Your task to perform on an android device: change your default location settings in chrome Image 0: 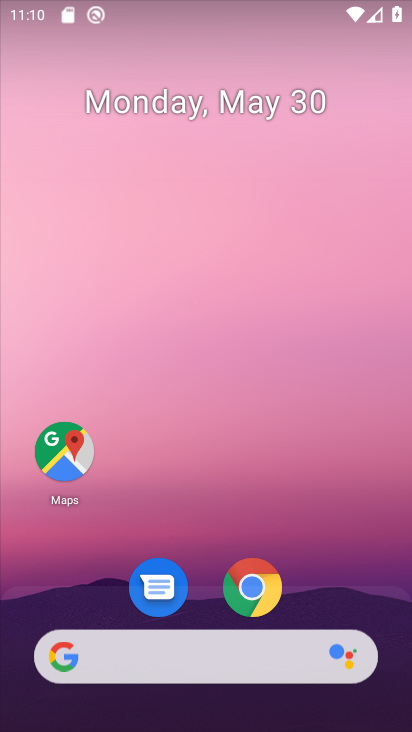
Step 0: click (257, 589)
Your task to perform on an android device: change your default location settings in chrome Image 1: 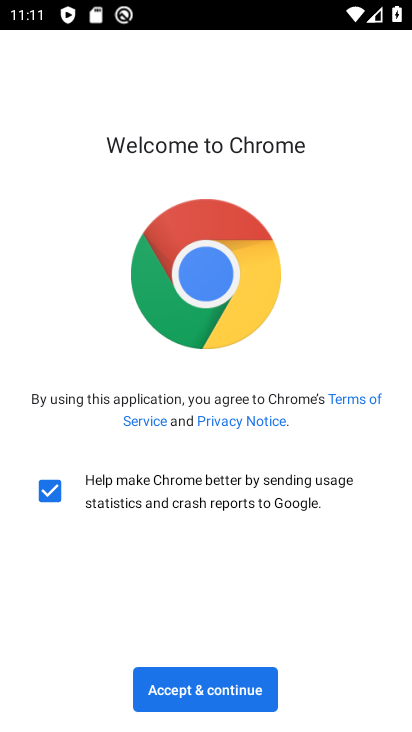
Step 1: click (205, 695)
Your task to perform on an android device: change your default location settings in chrome Image 2: 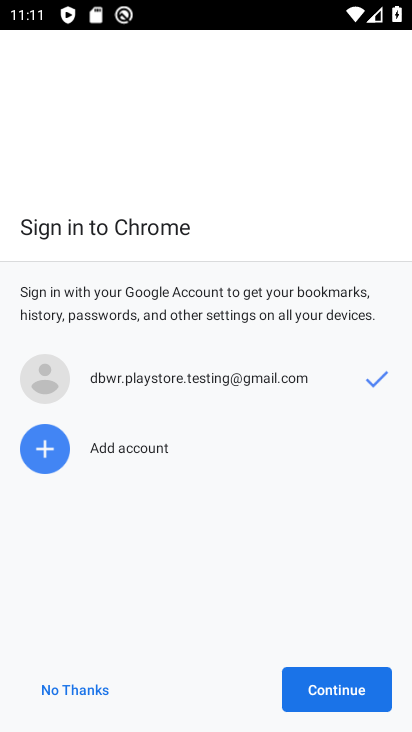
Step 2: click (339, 704)
Your task to perform on an android device: change your default location settings in chrome Image 3: 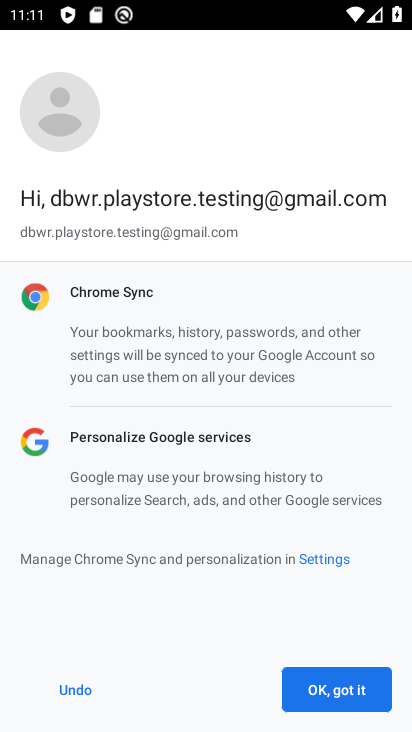
Step 3: click (328, 690)
Your task to perform on an android device: change your default location settings in chrome Image 4: 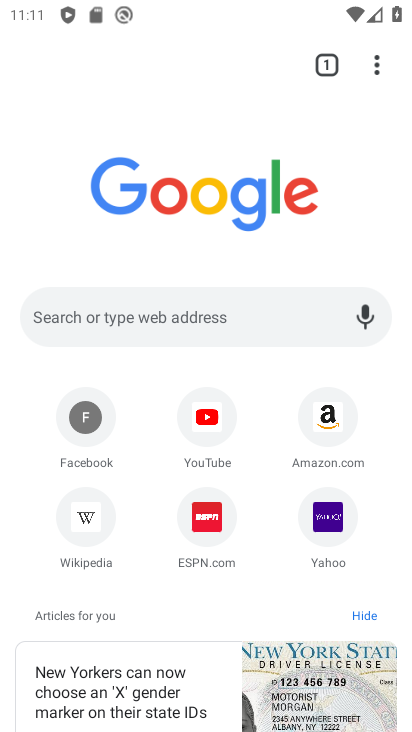
Step 4: click (371, 66)
Your task to perform on an android device: change your default location settings in chrome Image 5: 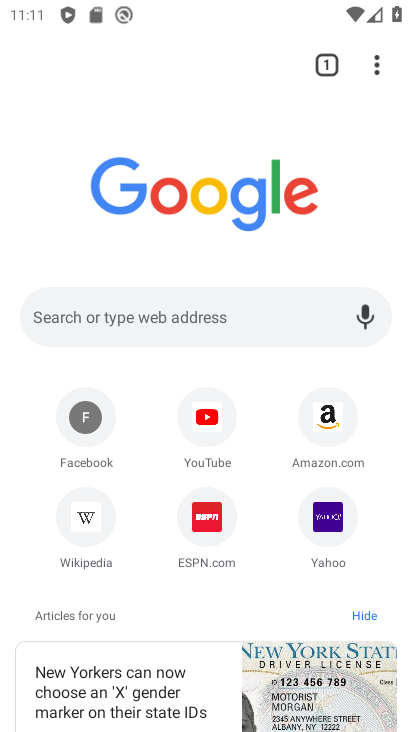
Step 5: click (373, 68)
Your task to perform on an android device: change your default location settings in chrome Image 6: 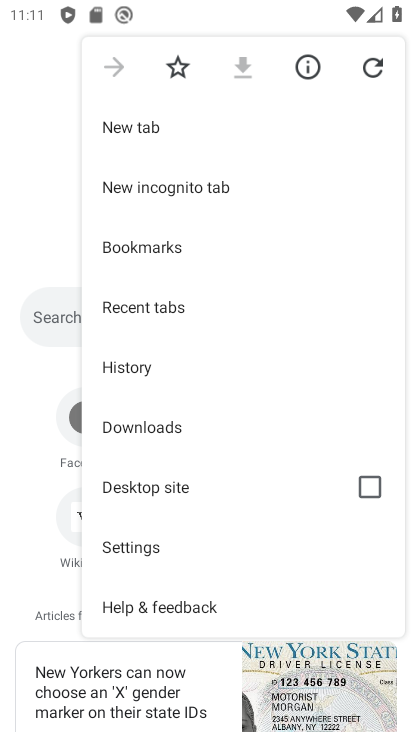
Step 6: click (181, 548)
Your task to perform on an android device: change your default location settings in chrome Image 7: 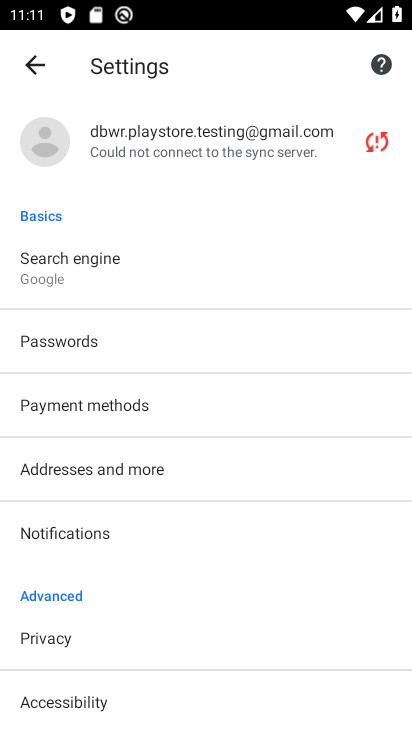
Step 7: drag from (127, 665) to (140, 154)
Your task to perform on an android device: change your default location settings in chrome Image 8: 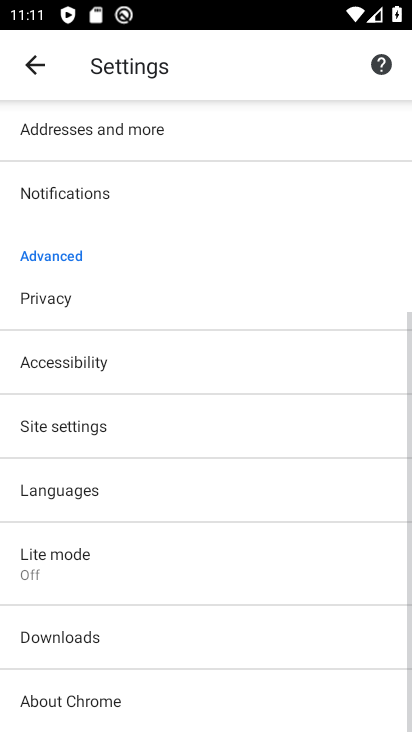
Step 8: click (121, 416)
Your task to perform on an android device: change your default location settings in chrome Image 9: 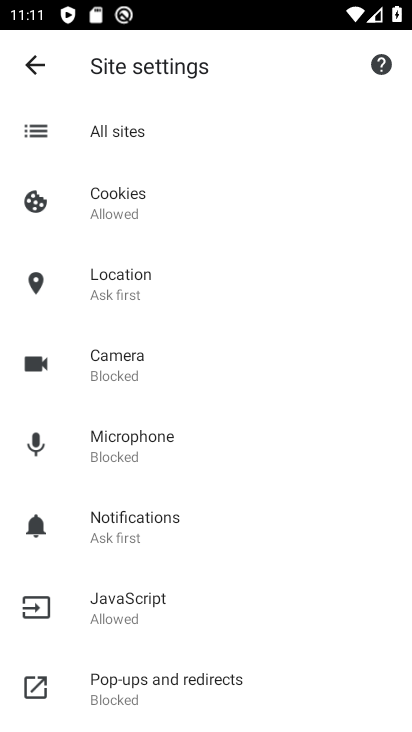
Step 9: click (149, 287)
Your task to perform on an android device: change your default location settings in chrome Image 10: 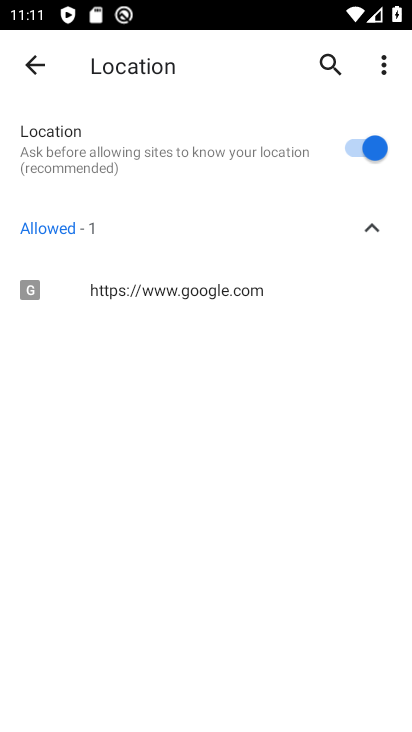
Step 10: click (385, 155)
Your task to perform on an android device: change your default location settings in chrome Image 11: 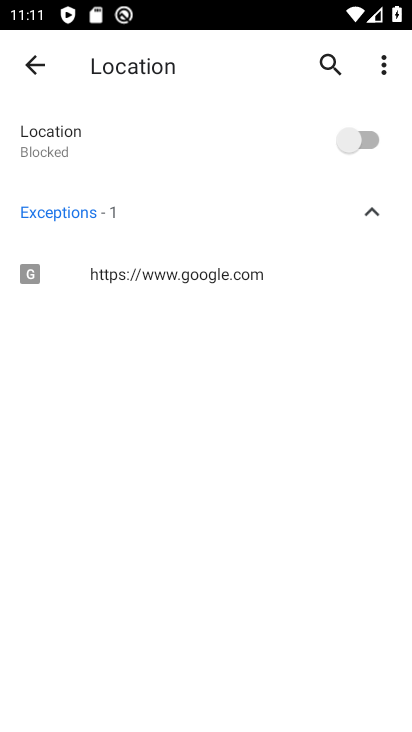
Step 11: task complete